Your task to perform on an android device: Search for Italian restaurants on Maps Image 0: 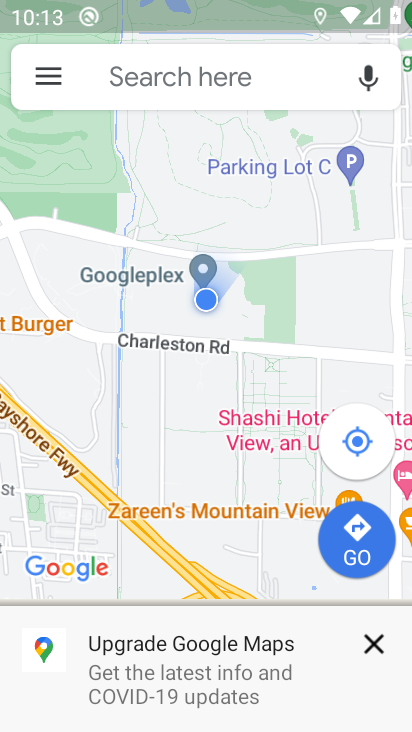
Step 0: click (181, 92)
Your task to perform on an android device: Search for Italian restaurants on Maps Image 1: 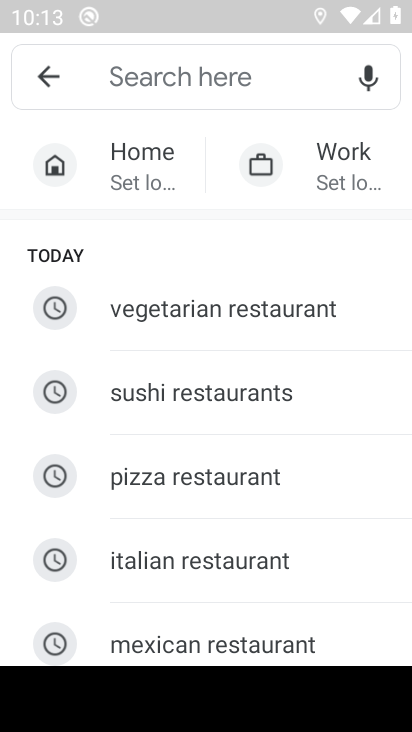
Step 1: click (172, 575)
Your task to perform on an android device: Search for Italian restaurants on Maps Image 2: 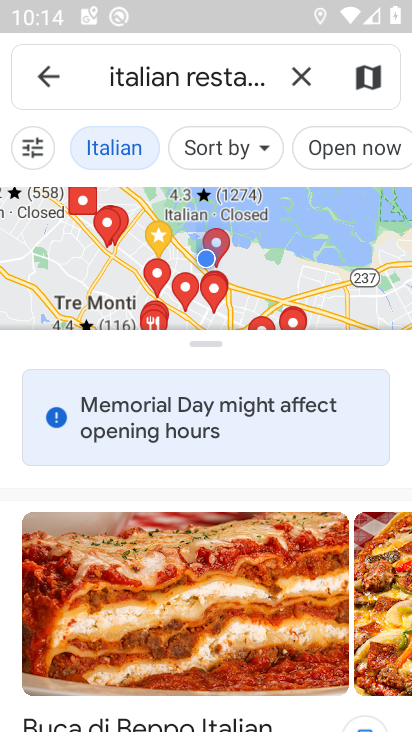
Step 2: task complete